Your task to perform on an android device: Open the map Image 0: 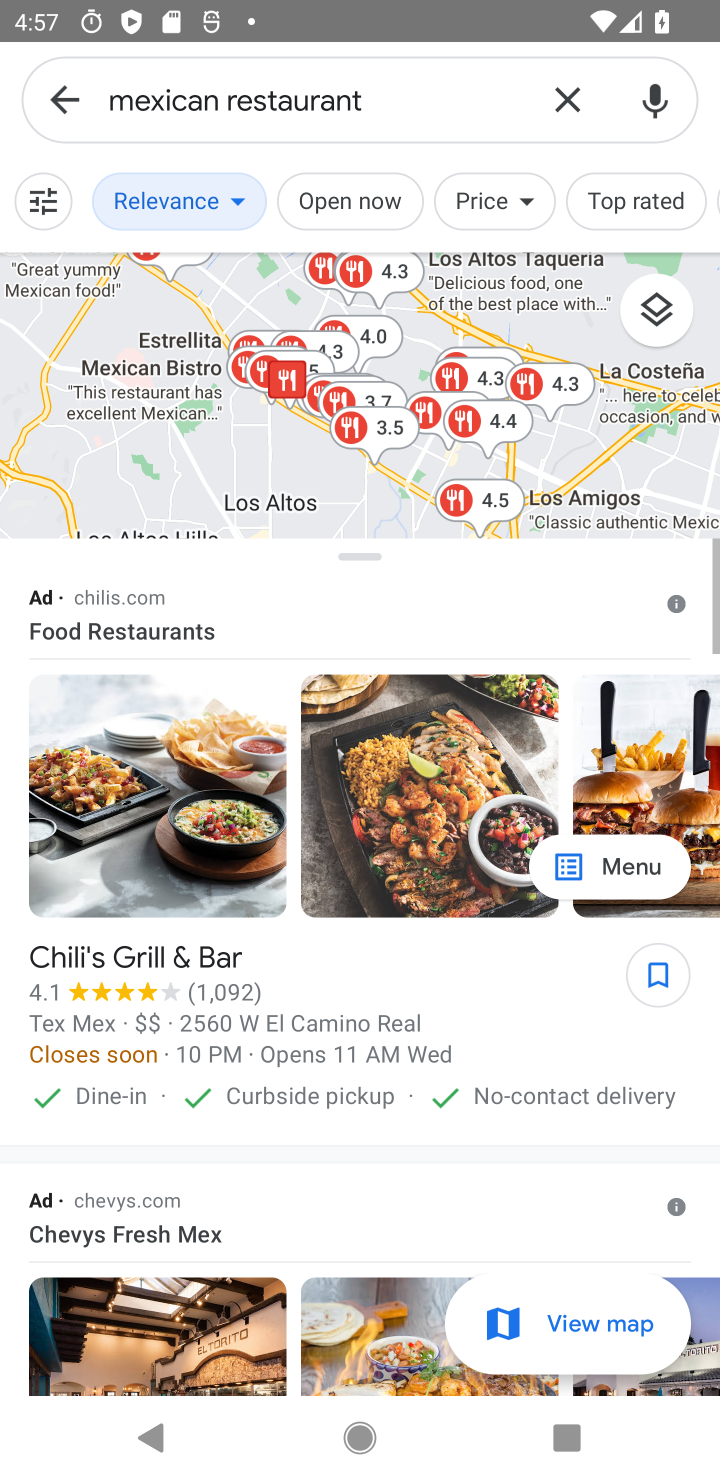
Step 0: click (40, 67)
Your task to perform on an android device: Open the map Image 1: 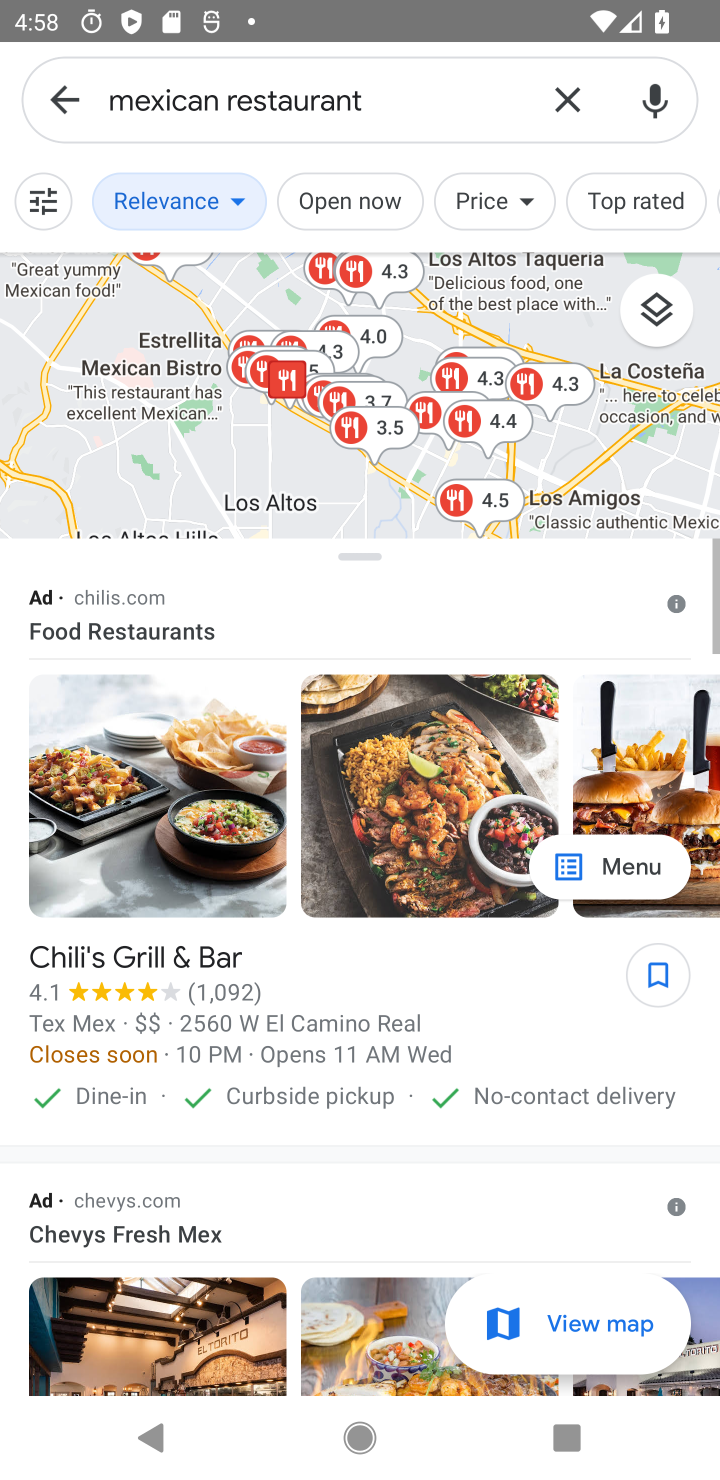
Step 1: press back button
Your task to perform on an android device: Open the map Image 2: 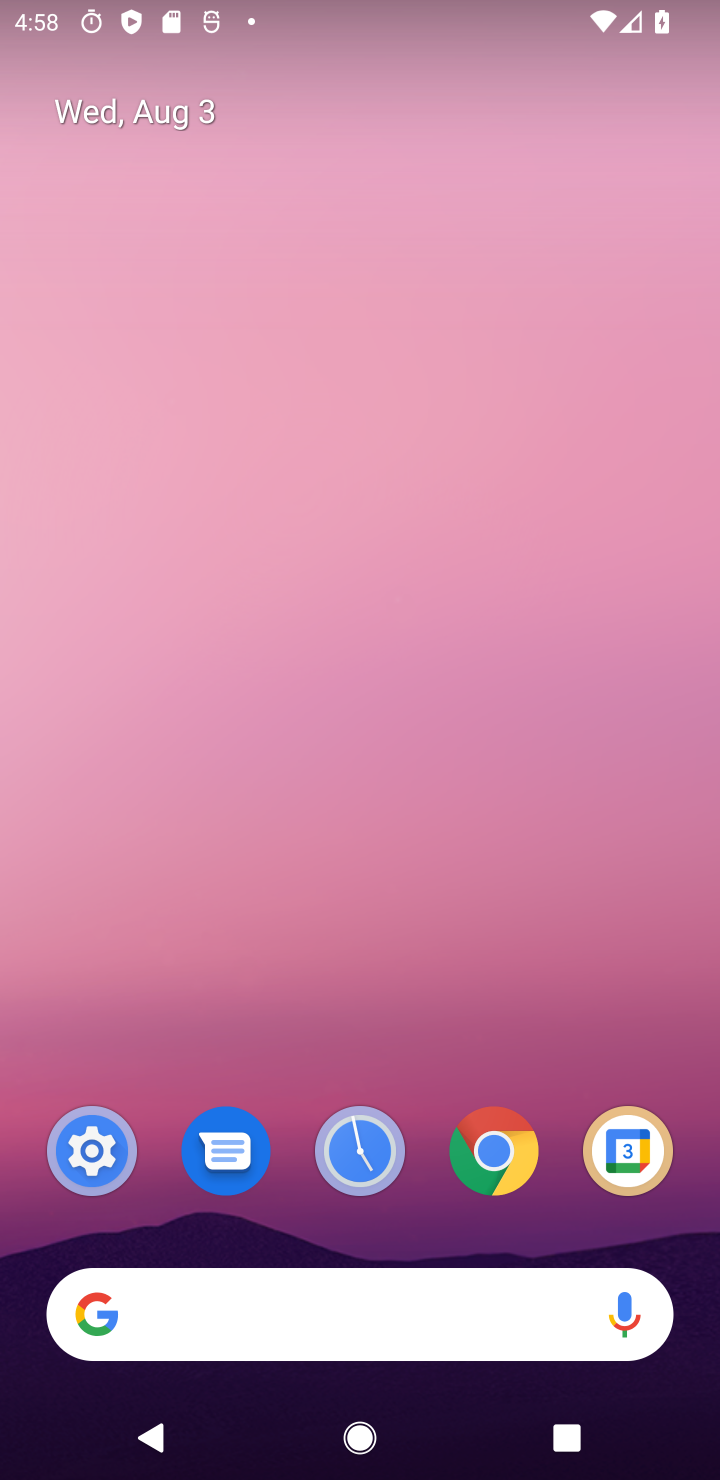
Step 2: drag from (356, 1456) to (220, 334)
Your task to perform on an android device: Open the map Image 3: 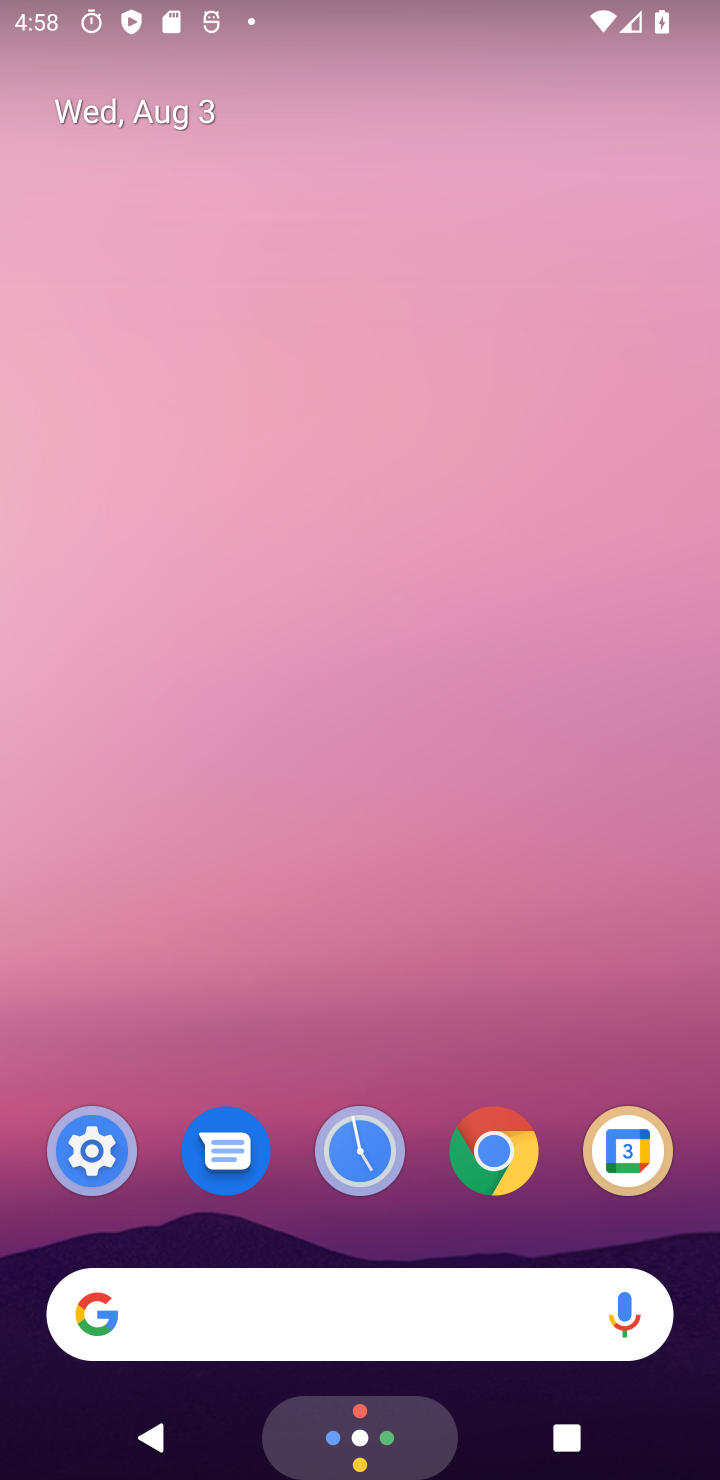
Step 3: click (199, 519)
Your task to perform on an android device: Open the map Image 4: 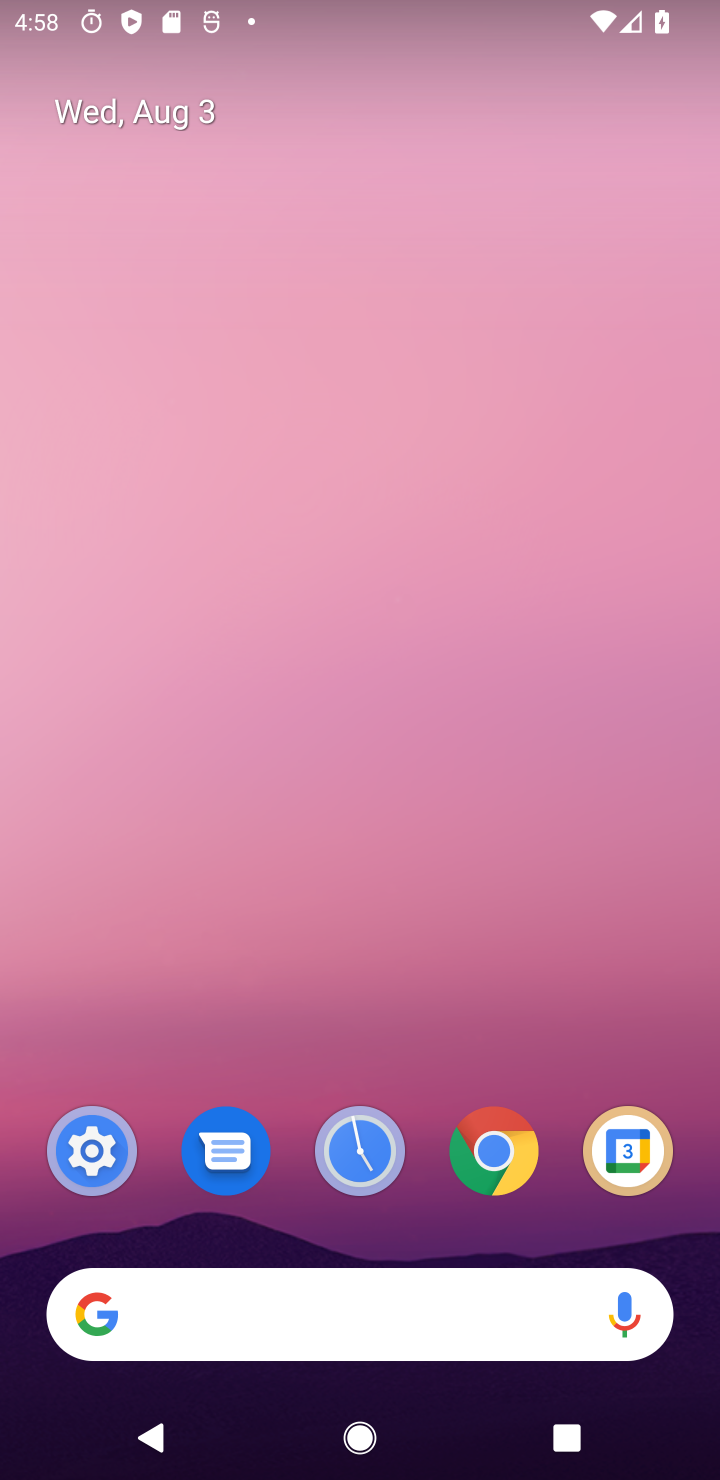
Step 4: drag from (448, 751) to (363, 466)
Your task to perform on an android device: Open the map Image 5: 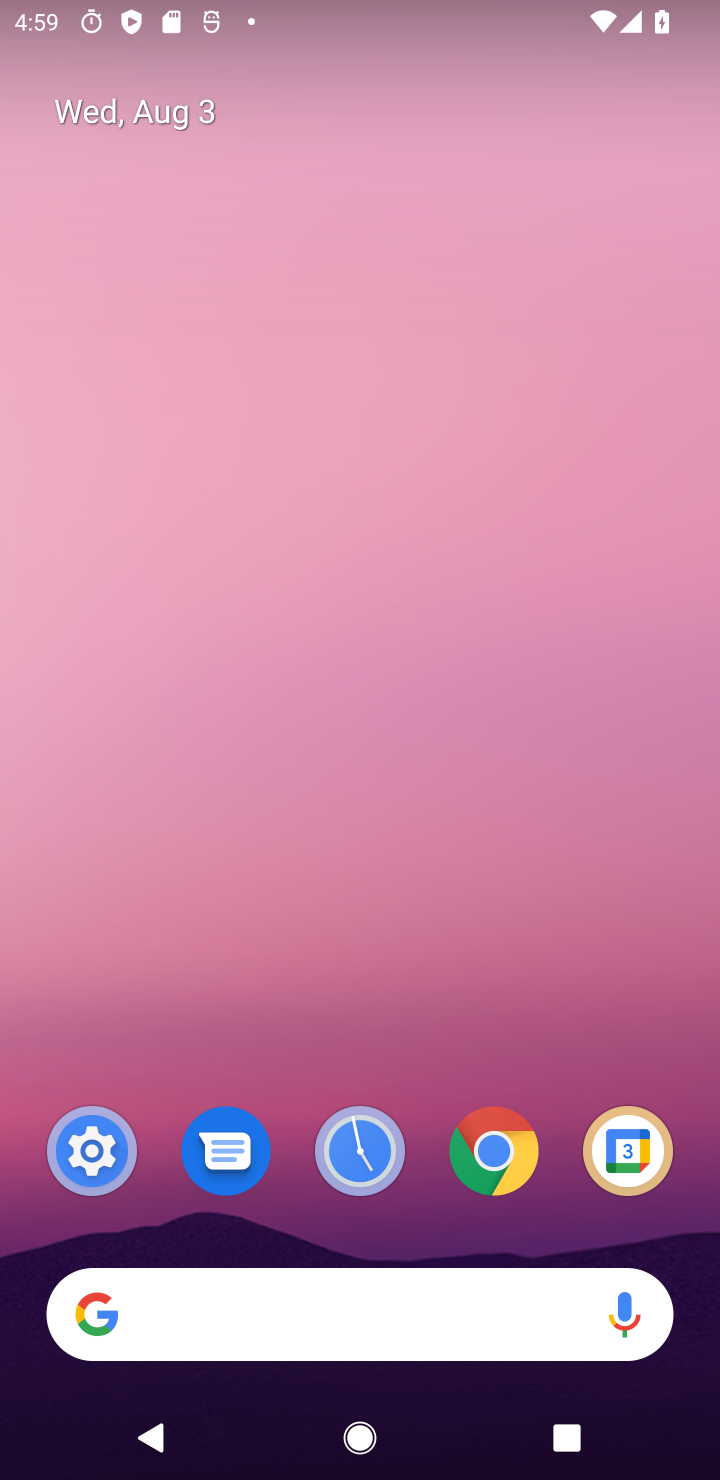
Step 5: click (367, 336)
Your task to perform on an android device: Open the map Image 6: 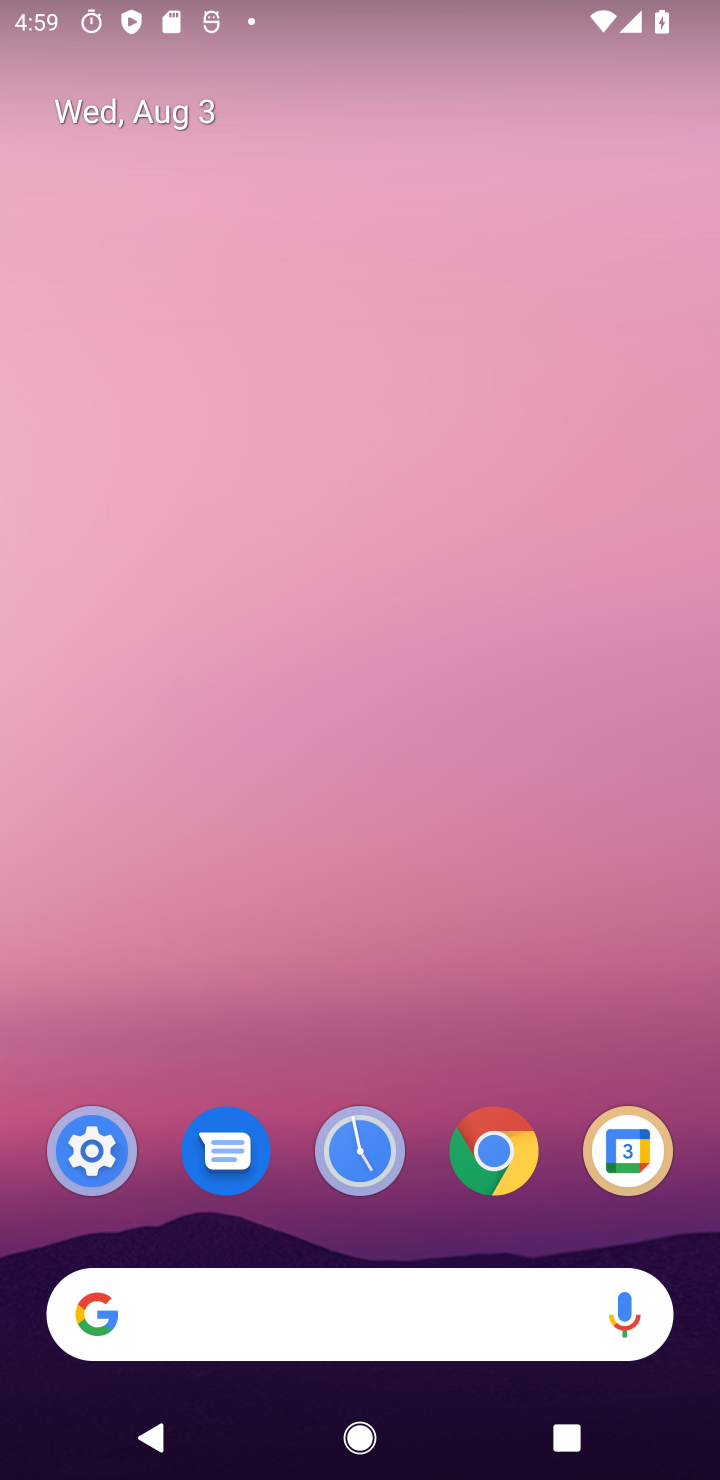
Step 6: drag from (218, 627) to (284, 274)
Your task to perform on an android device: Open the map Image 7: 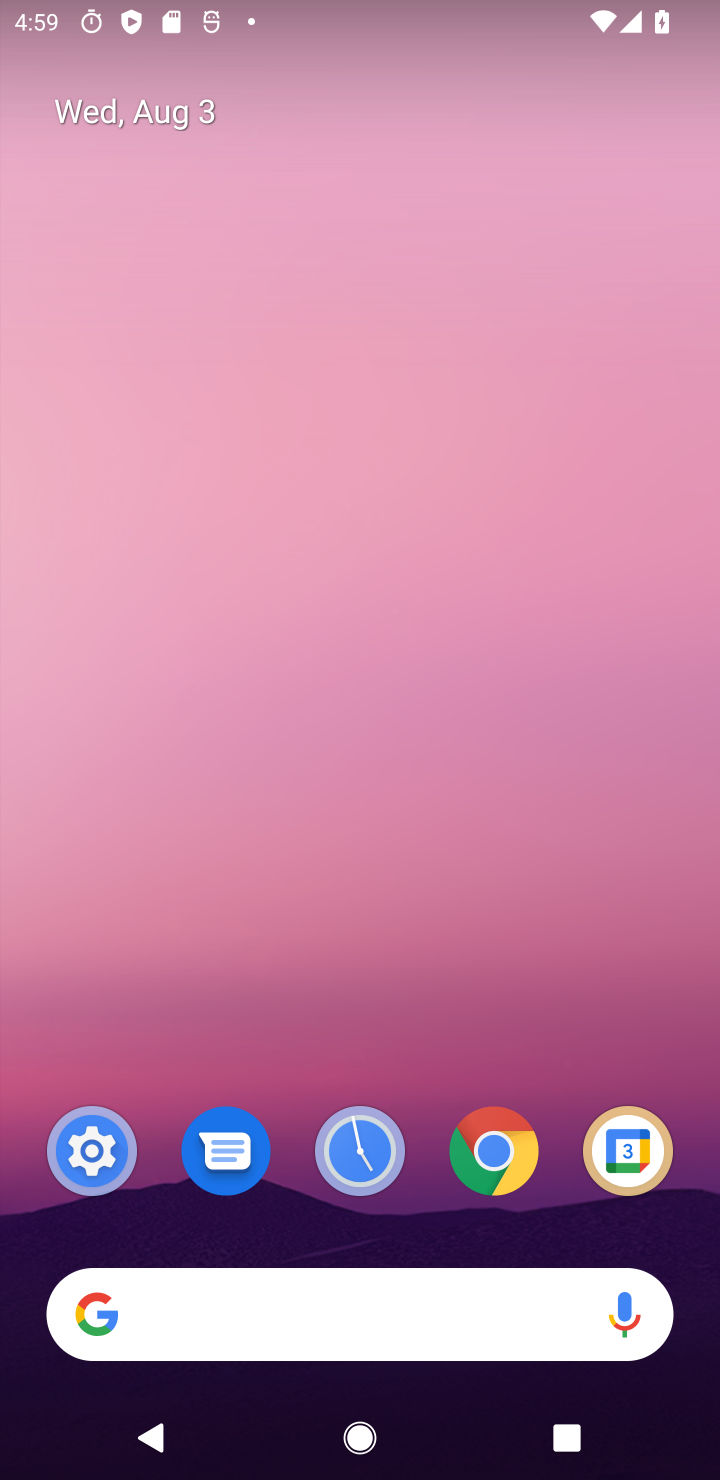
Step 7: drag from (346, 497) to (315, 267)
Your task to perform on an android device: Open the map Image 8: 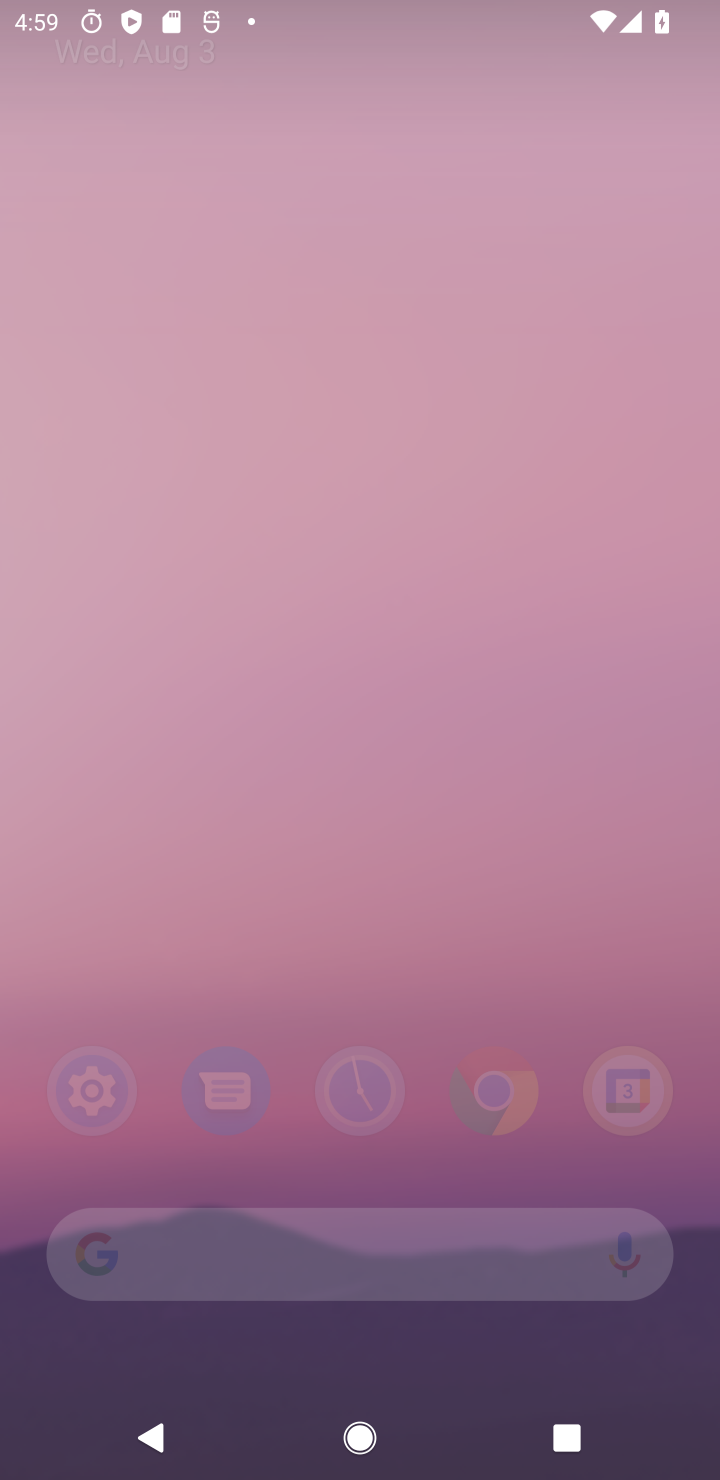
Step 8: drag from (389, 783) to (387, 281)
Your task to perform on an android device: Open the map Image 9: 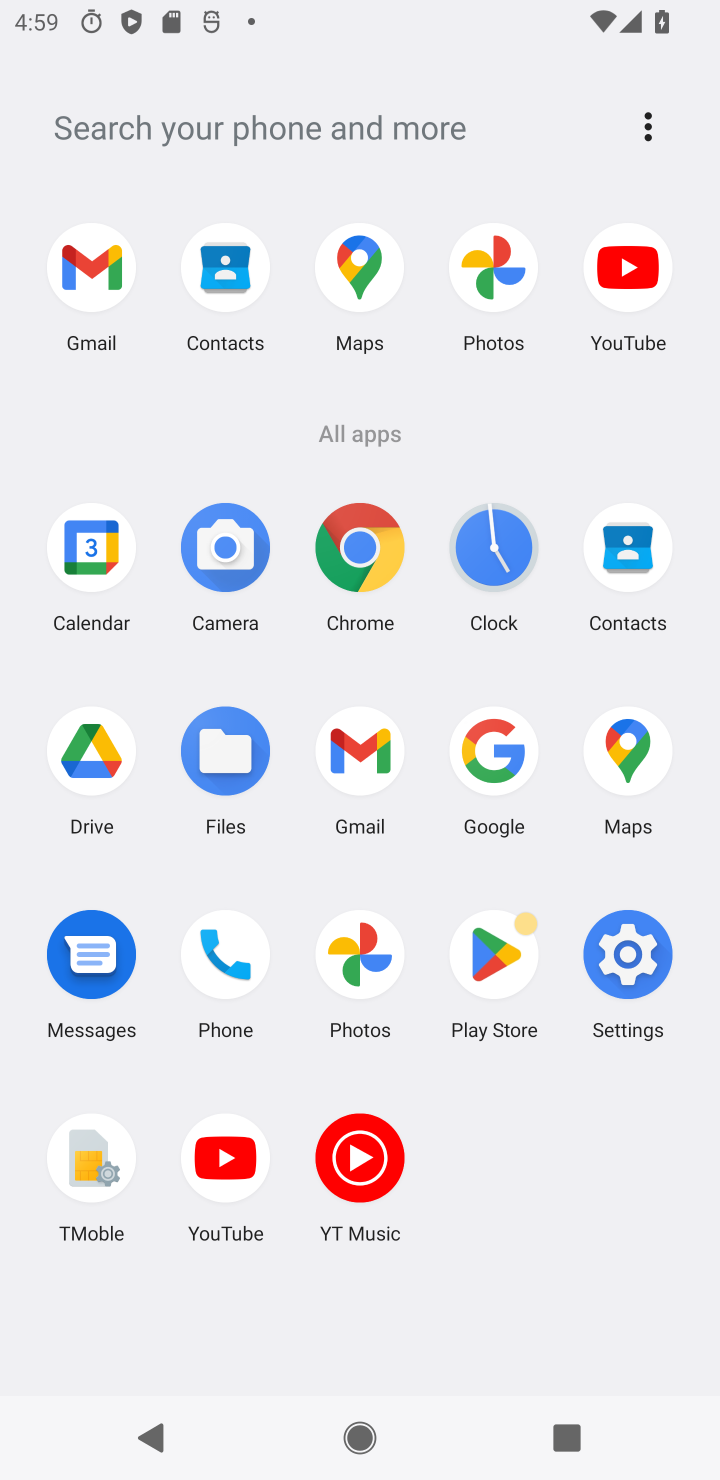
Step 9: click (328, 279)
Your task to perform on an android device: Open the map Image 10: 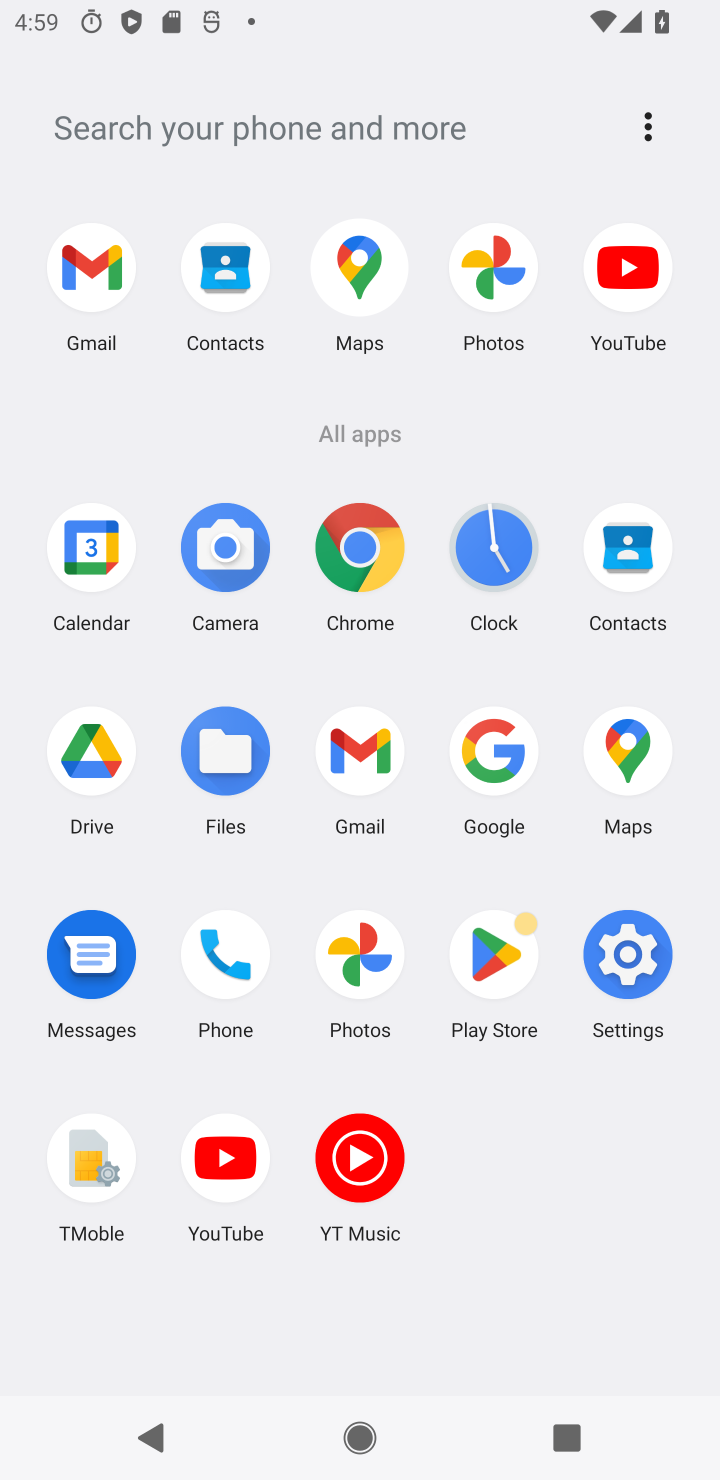
Step 10: click (341, 270)
Your task to perform on an android device: Open the map Image 11: 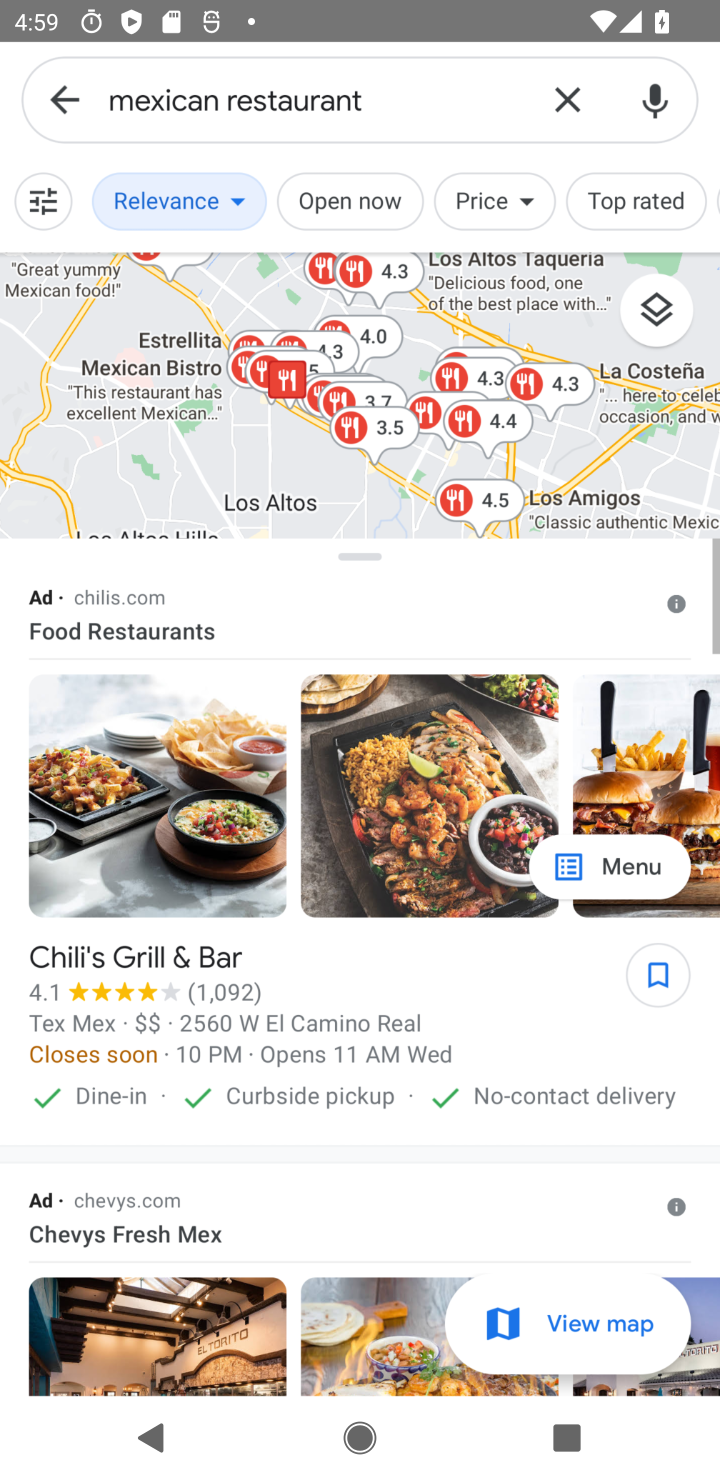
Step 11: click (354, 286)
Your task to perform on an android device: Open the map Image 12: 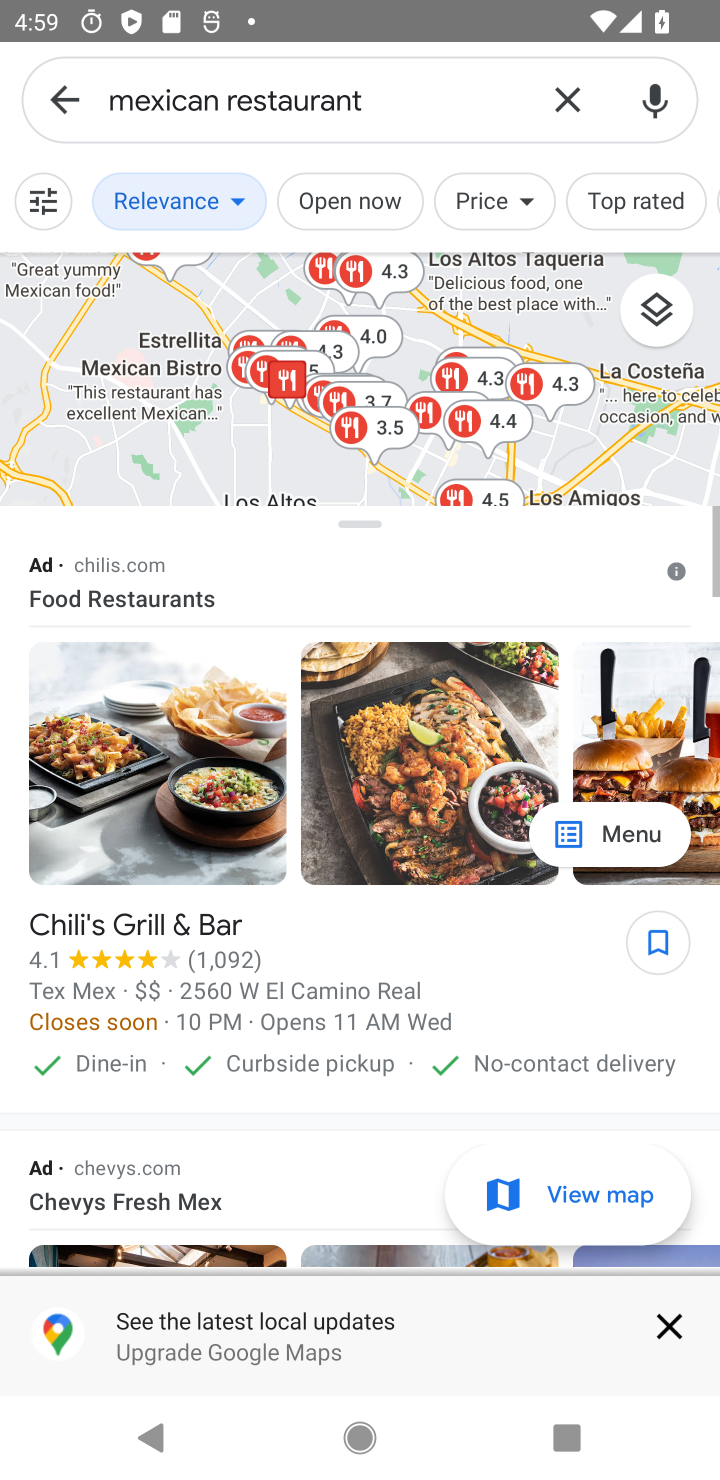
Step 12: click (575, 99)
Your task to perform on an android device: Open the map Image 13: 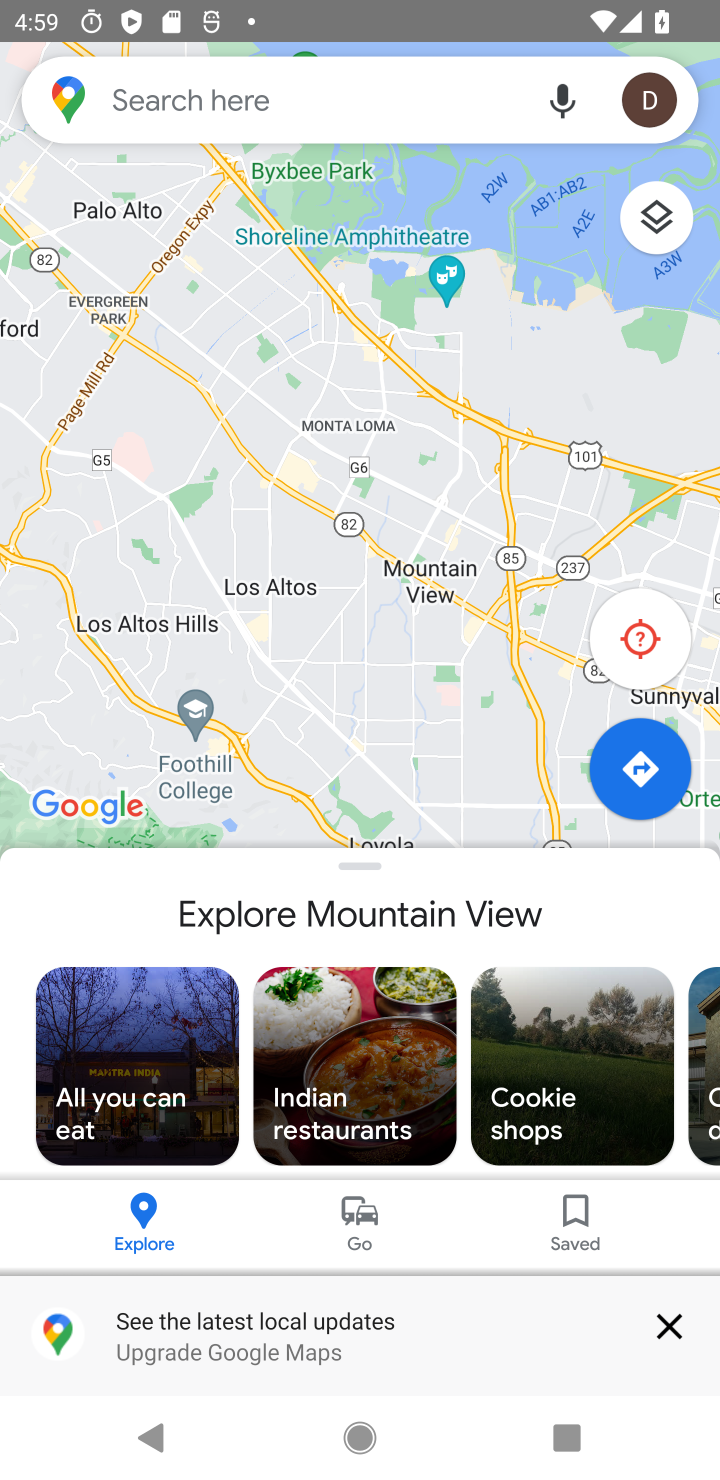
Step 13: task complete